Your task to perform on an android device: Go to eBay Image 0: 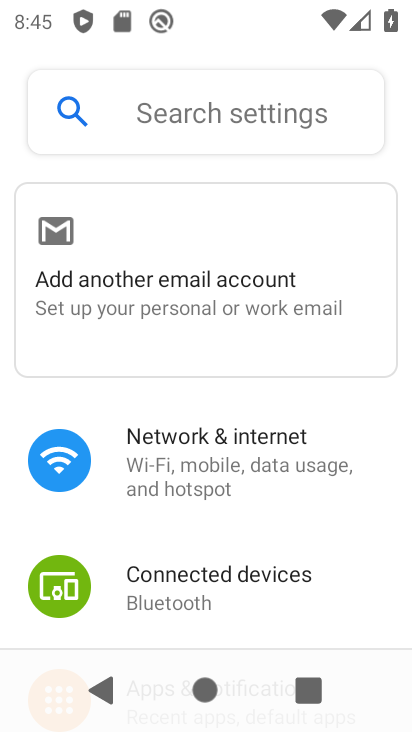
Step 0: press home button
Your task to perform on an android device: Go to eBay Image 1: 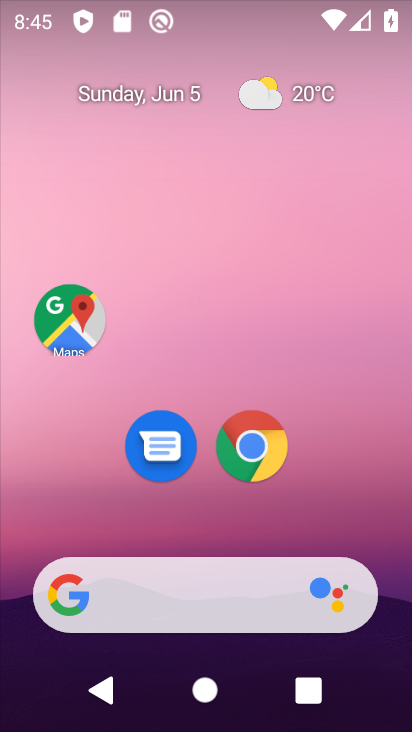
Step 1: drag from (193, 530) to (197, 182)
Your task to perform on an android device: Go to eBay Image 2: 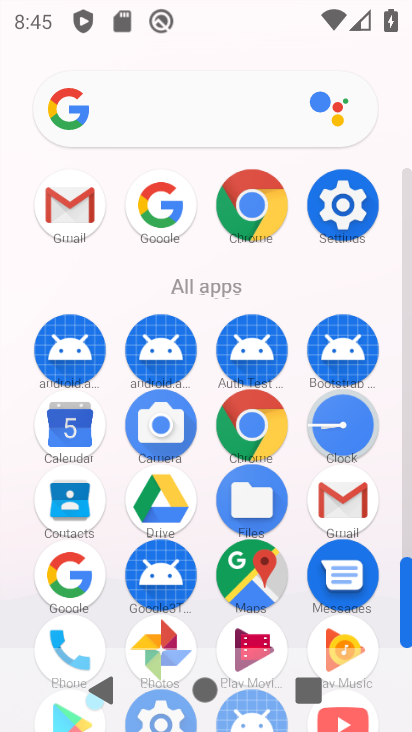
Step 2: click (259, 211)
Your task to perform on an android device: Go to eBay Image 3: 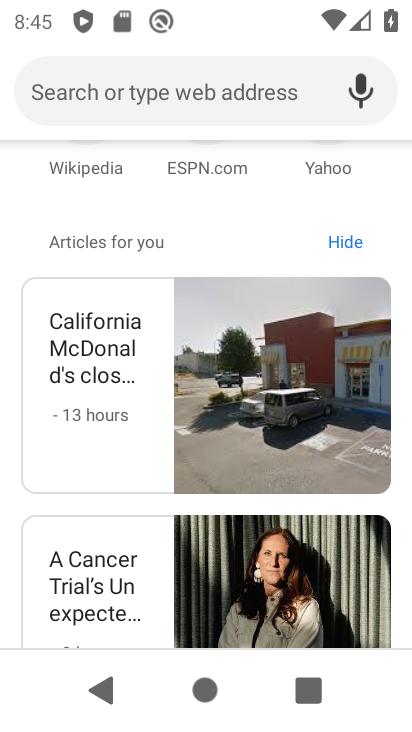
Step 3: click (259, 91)
Your task to perform on an android device: Go to eBay Image 4: 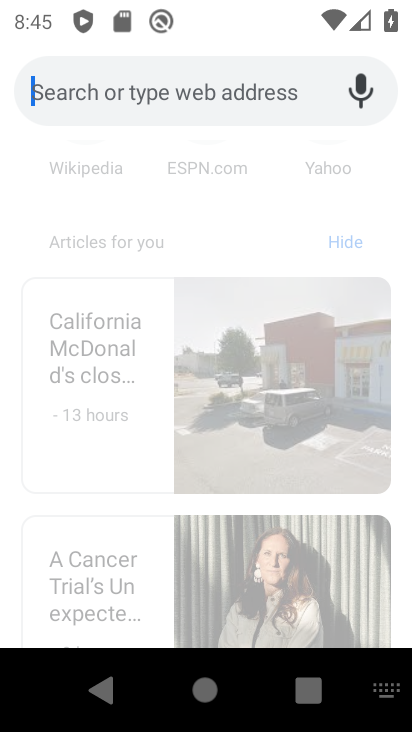
Step 4: type "eBay"
Your task to perform on an android device: Go to eBay Image 5: 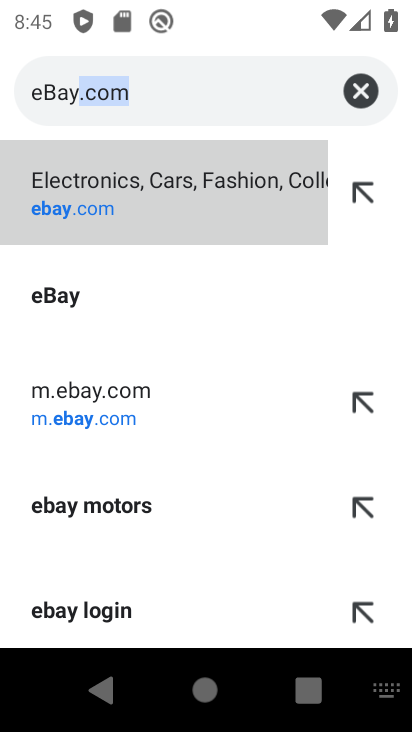
Step 5: click (132, 293)
Your task to perform on an android device: Go to eBay Image 6: 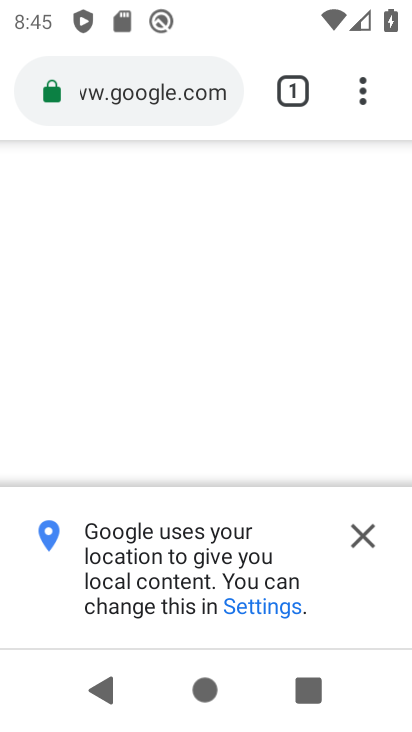
Step 6: task complete